Your task to perform on an android device: toggle pop-ups in chrome Image 0: 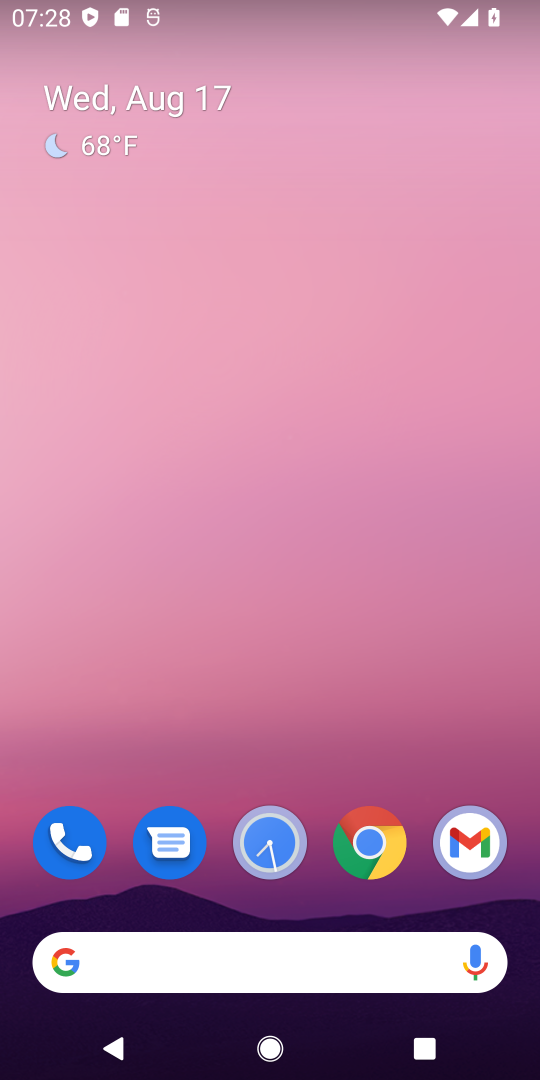
Step 0: click (375, 833)
Your task to perform on an android device: toggle pop-ups in chrome Image 1: 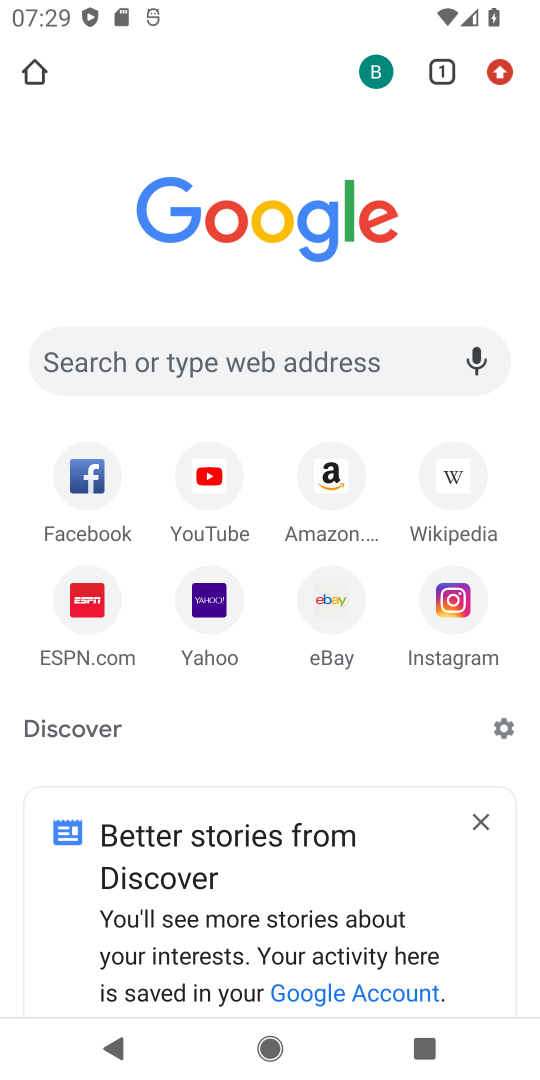
Step 1: click (504, 79)
Your task to perform on an android device: toggle pop-ups in chrome Image 2: 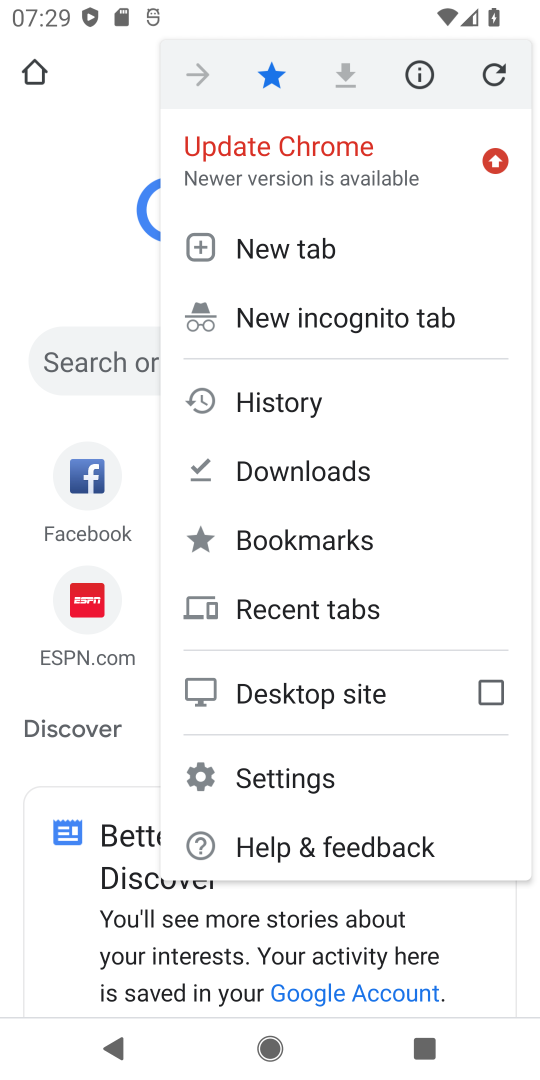
Step 2: click (316, 773)
Your task to perform on an android device: toggle pop-ups in chrome Image 3: 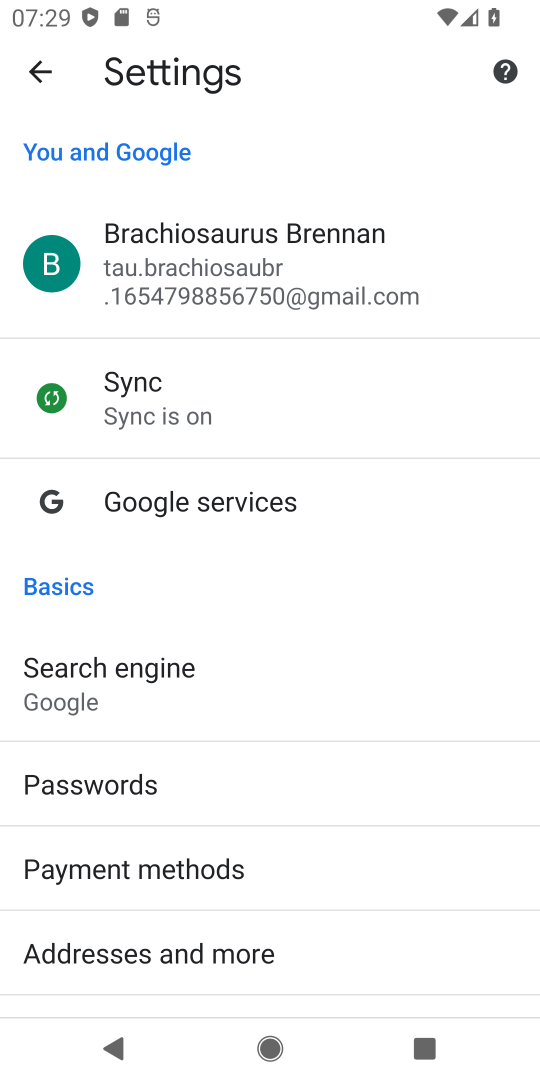
Step 3: drag from (296, 774) to (310, 208)
Your task to perform on an android device: toggle pop-ups in chrome Image 4: 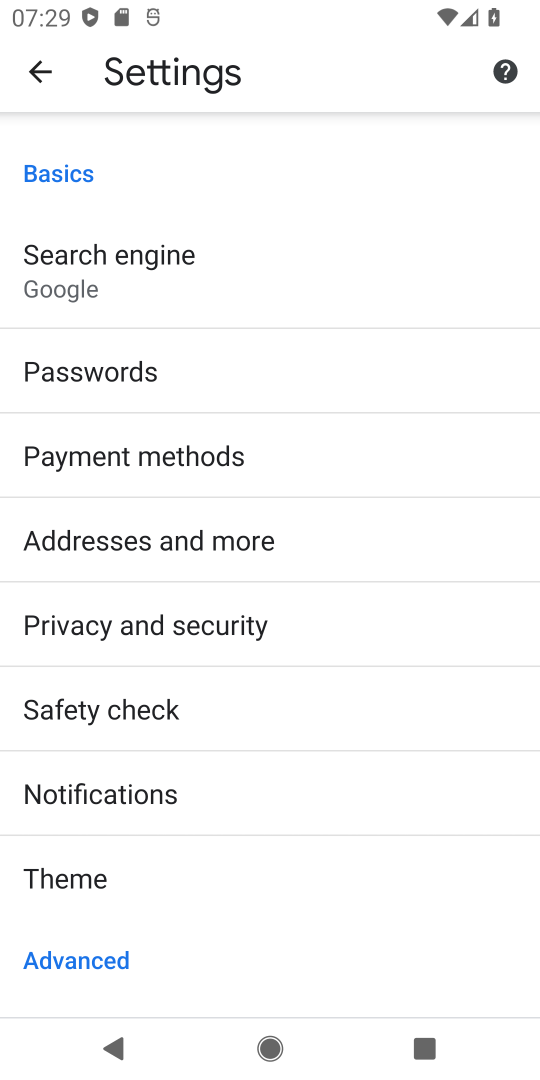
Step 4: drag from (286, 790) to (317, 196)
Your task to perform on an android device: toggle pop-ups in chrome Image 5: 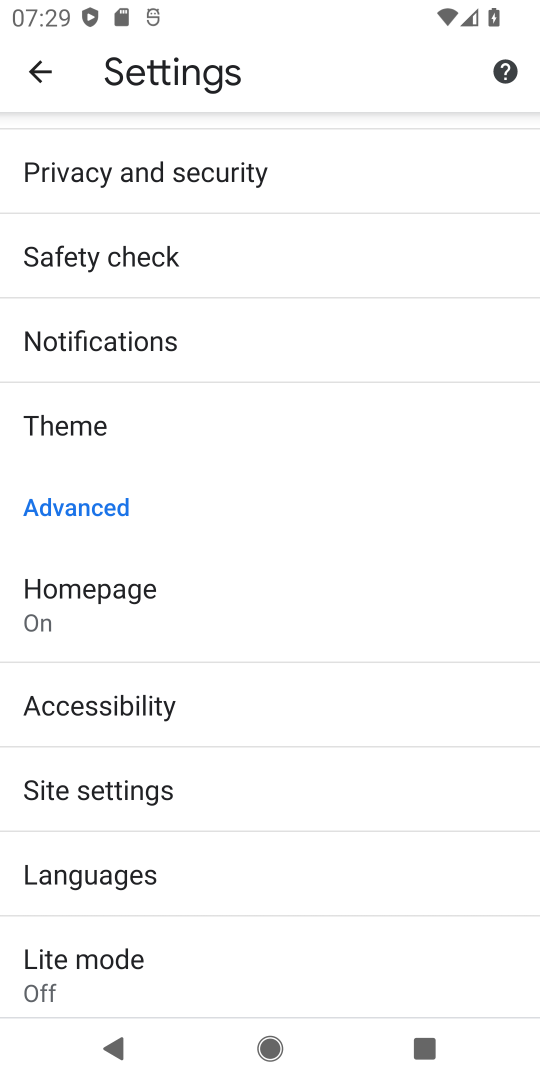
Step 5: click (220, 793)
Your task to perform on an android device: toggle pop-ups in chrome Image 6: 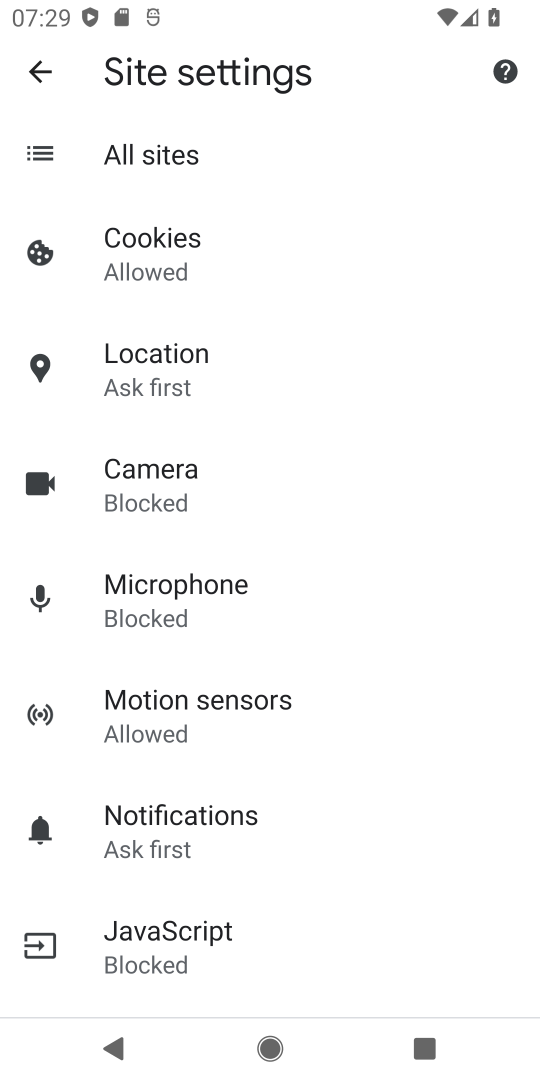
Step 6: drag from (290, 743) to (316, 304)
Your task to perform on an android device: toggle pop-ups in chrome Image 7: 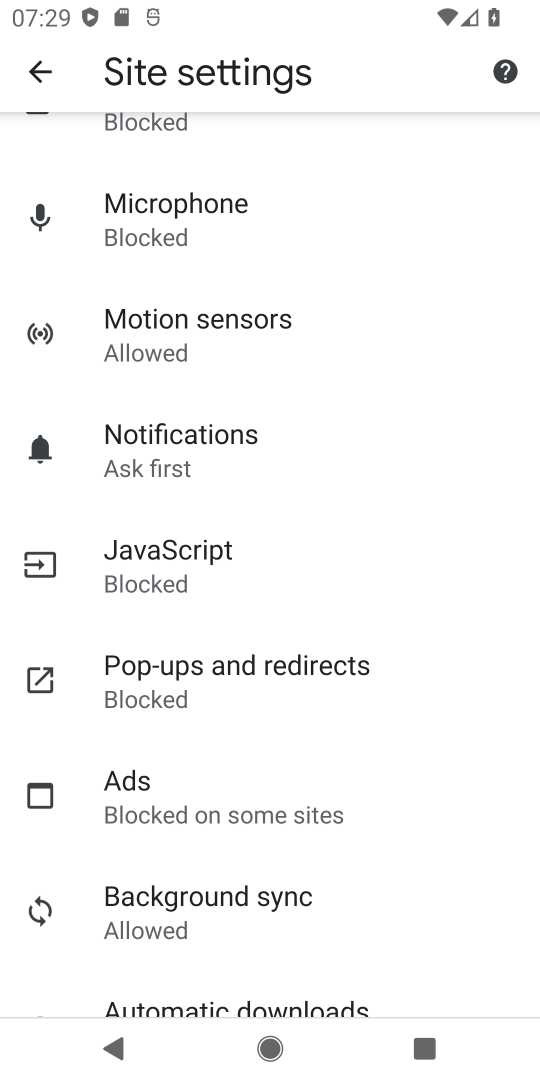
Step 7: click (283, 668)
Your task to perform on an android device: toggle pop-ups in chrome Image 8: 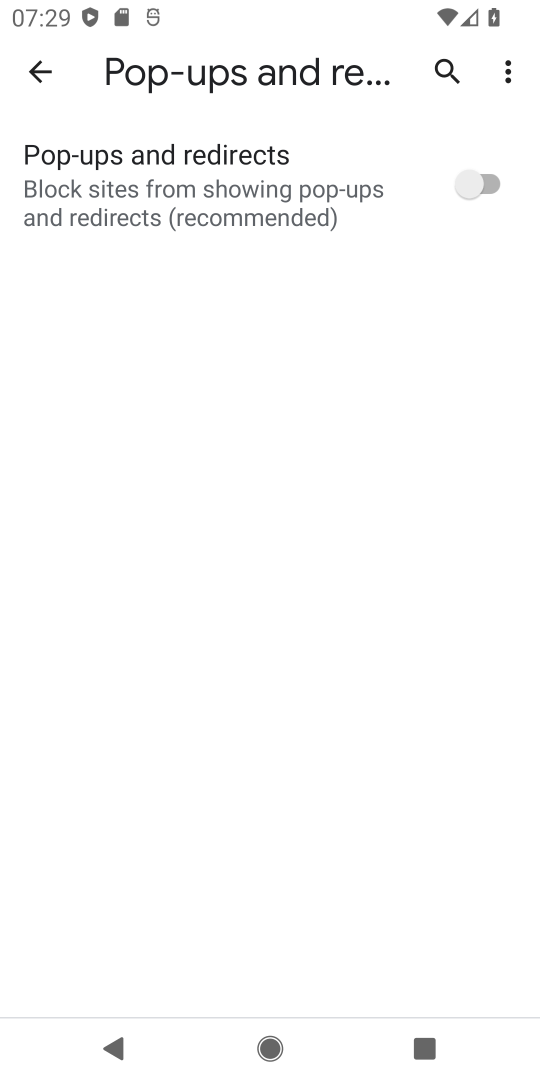
Step 8: click (482, 175)
Your task to perform on an android device: toggle pop-ups in chrome Image 9: 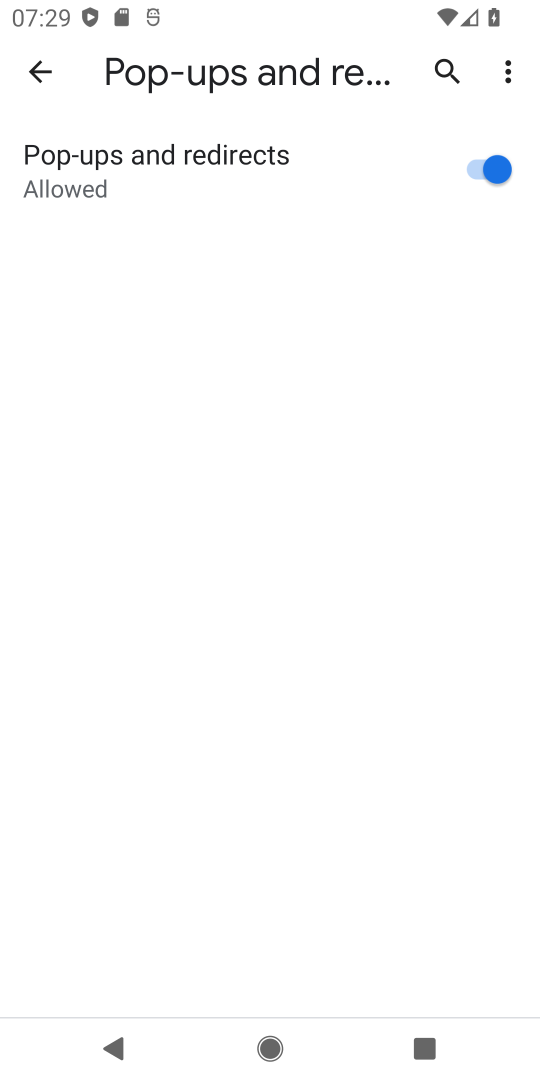
Step 9: task complete